Your task to perform on an android device: Do I have any events tomorrow? Image 0: 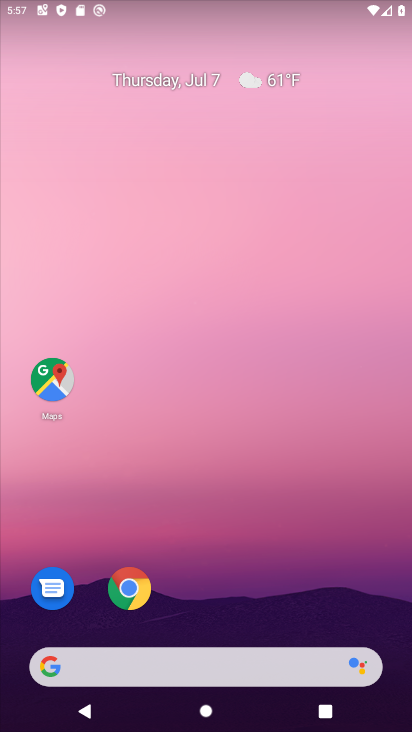
Step 0: drag from (232, 557) to (296, 69)
Your task to perform on an android device: Do I have any events tomorrow? Image 1: 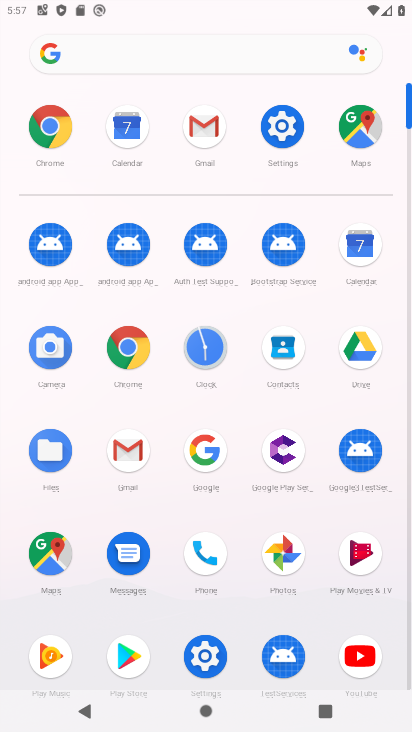
Step 1: click (358, 236)
Your task to perform on an android device: Do I have any events tomorrow? Image 2: 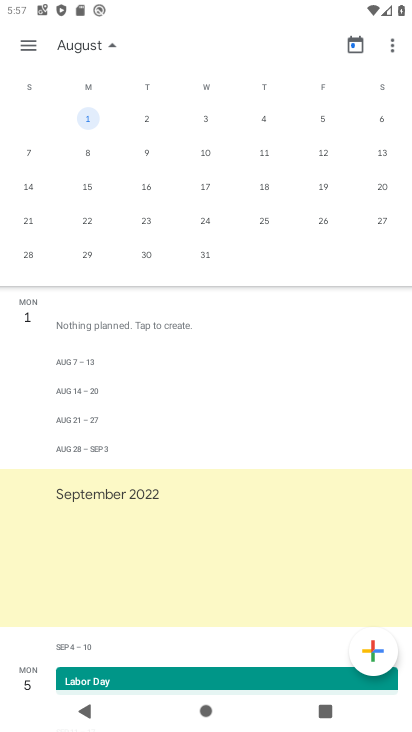
Step 2: drag from (49, 189) to (350, 182)
Your task to perform on an android device: Do I have any events tomorrow? Image 3: 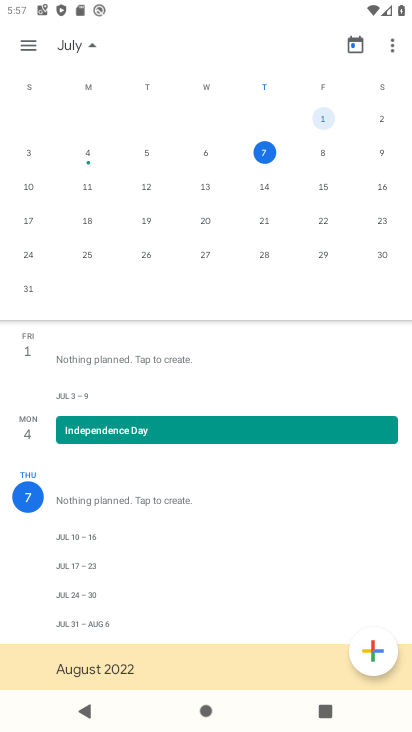
Step 3: click (325, 150)
Your task to perform on an android device: Do I have any events tomorrow? Image 4: 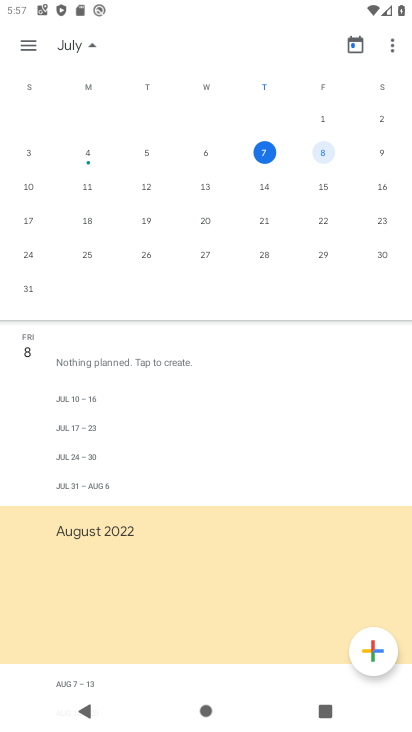
Step 4: task complete